Your task to perform on an android device: Search for pizza restaurants on Maps Image 0: 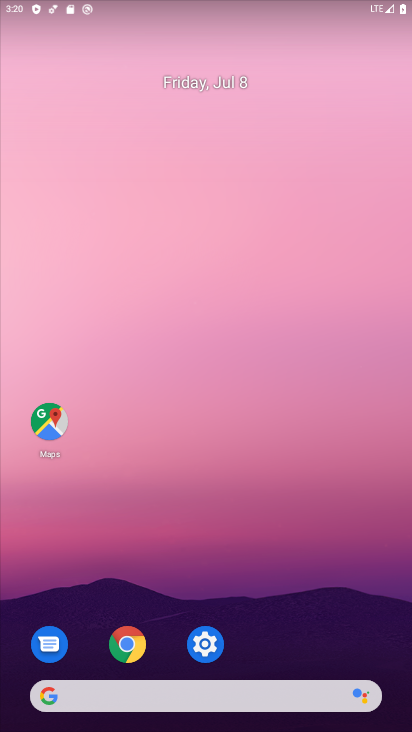
Step 0: click (36, 410)
Your task to perform on an android device: Search for pizza restaurants on Maps Image 1: 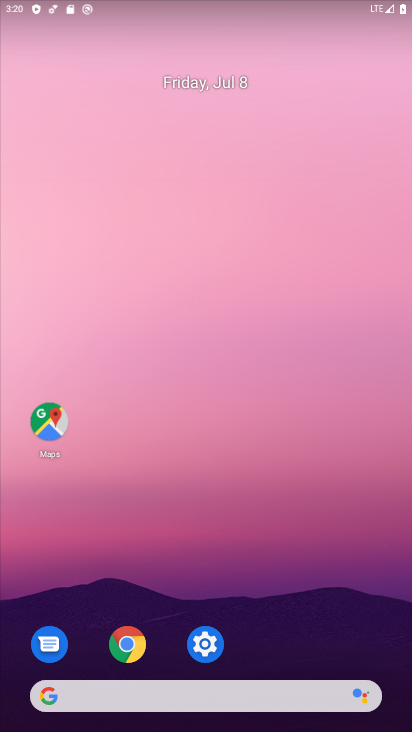
Step 1: click (36, 410)
Your task to perform on an android device: Search for pizza restaurants on Maps Image 2: 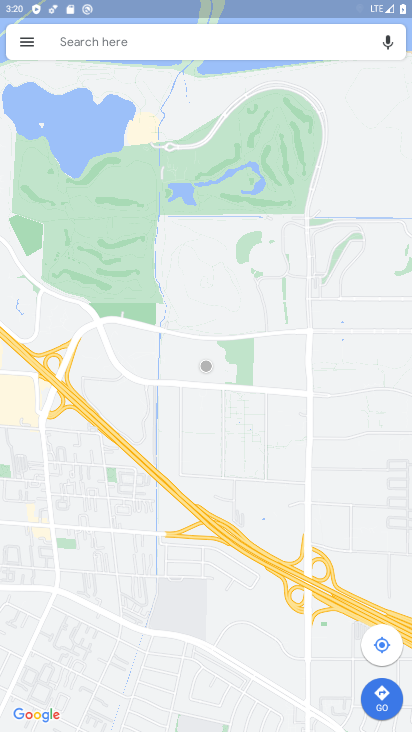
Step 2: click (57, 41)
Your task to perform on an android device: Search for pizza restaurants on Maps Image 3: 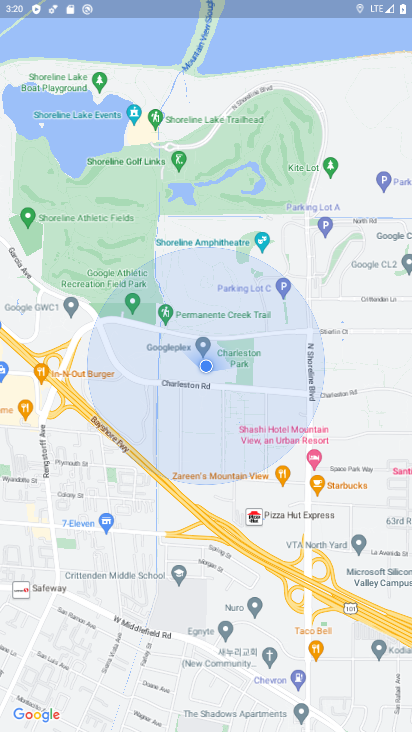
Step 3: click (95, 44)
Your task to perform on an android device: Search for pizza restaurants on Maps Image 4: 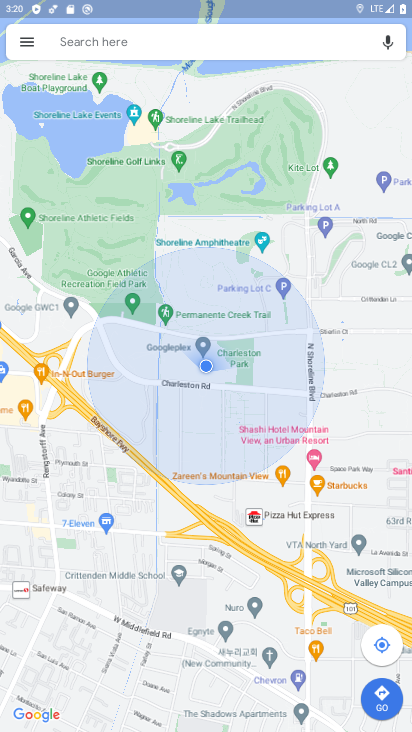
Step 4: click (46, 44)
Your task to perform on an android device: Search for pizza restaurants on Maps Image 5: 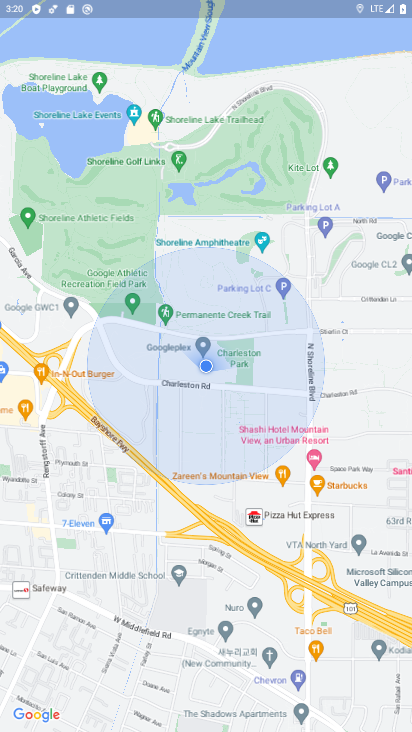
Step 5: click (130, 37)
Your task to perform on an android device: Search for pizza restaurants on Maps Image 6: 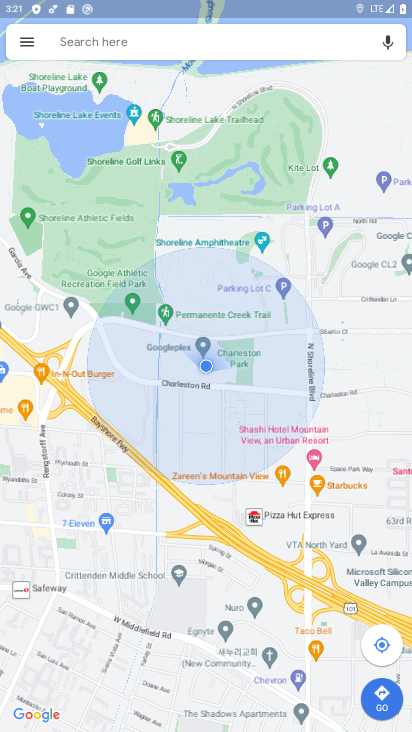
Step 6: click (111, 43)
Your task to perform on an android device: Search for pizza restaurants on Maps Image 7: 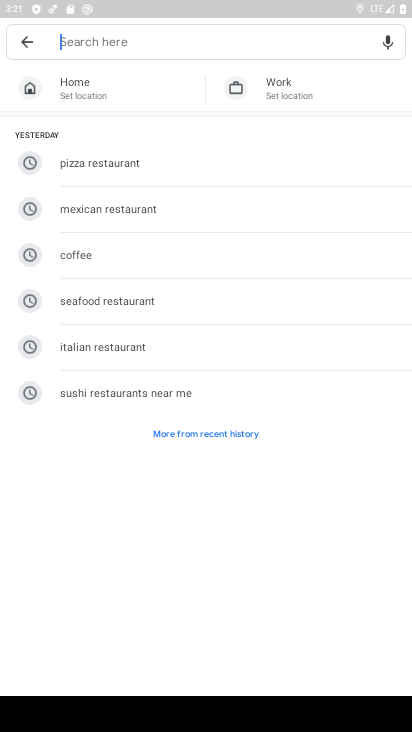
Step 7: type "pizza restaurants"
Your task to perform on an android device: Search for pizza restaurants on Maps Image 8: 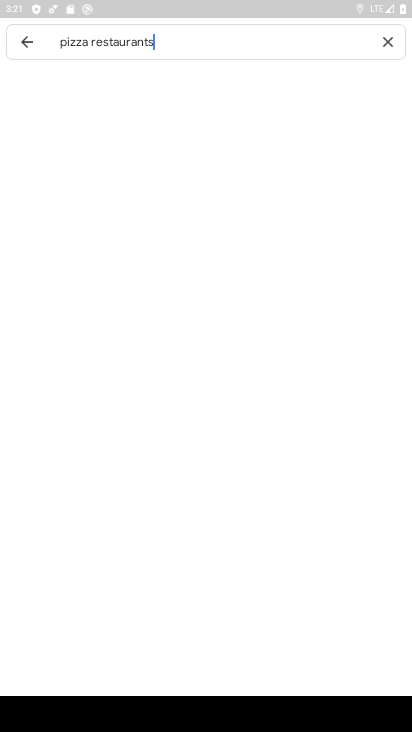
Step 8: type ""
Your task to perform on an android device: Search for pizza restaurants on Maps Image 9: 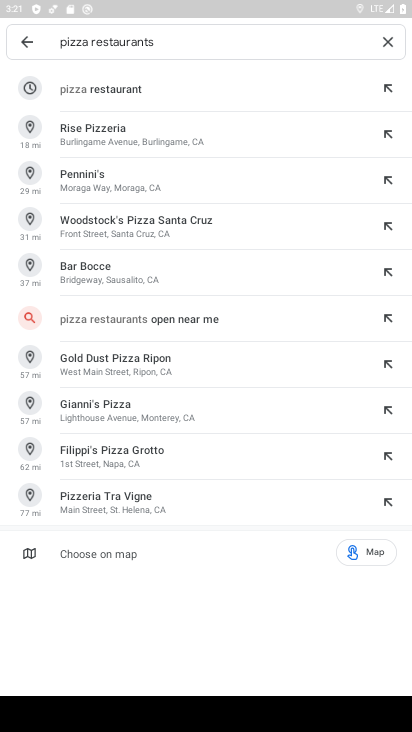
Step 9: type ""
Your task to perform on an android device: Search for pizza restaurants on Maps Image 10: 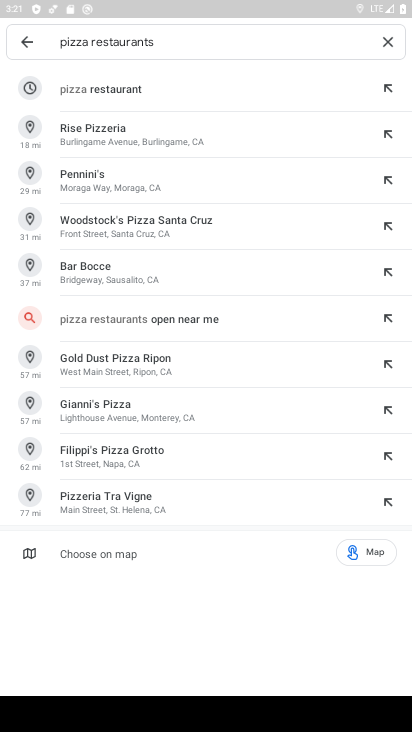
Step 10: click (111, 87)
Your task to perform on an android device: Search for pizza restaurants on Maps Image 11: 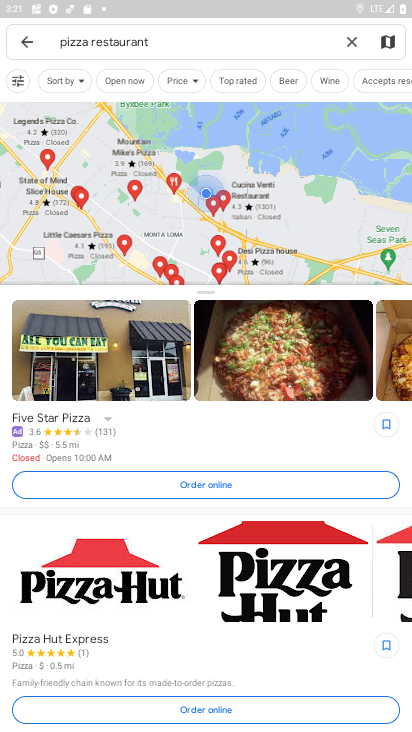
Step 11: task complete